Your task to perform on an android device: Show me productivity apps on the Play Store Image 0: 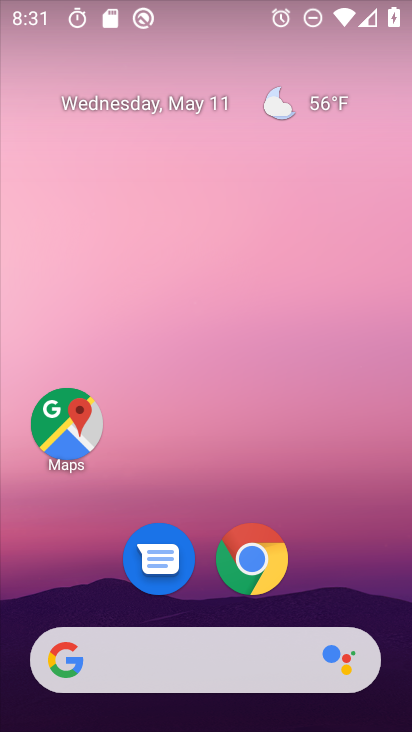
Step 0: drag from (314, 612) to (219, 20)
Your task to perform on an android device: Show me productivity apps on the Play Store Image 1: 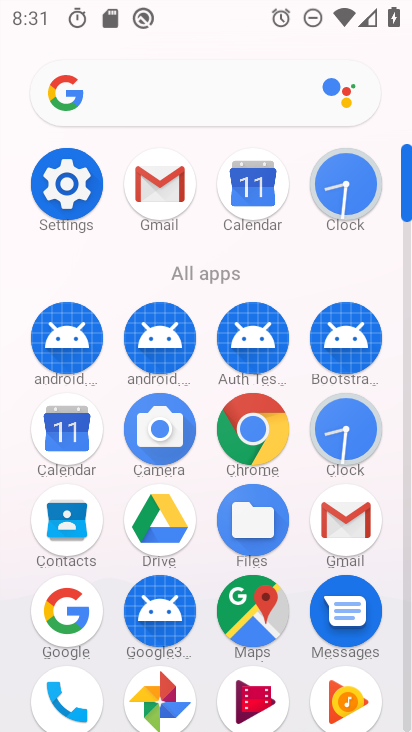
Step 1: drag from (187, 617) to (255, 205)
Your task to perform on an android device: Show me productivity apps on the Play Store Image 2: 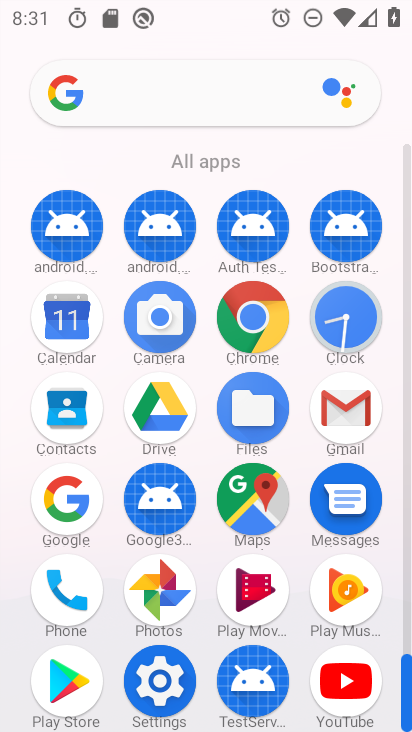
Step 2: click (56, 689)
Your task to perform on an android device: Show me productivity apps on the Play Store Image 3: 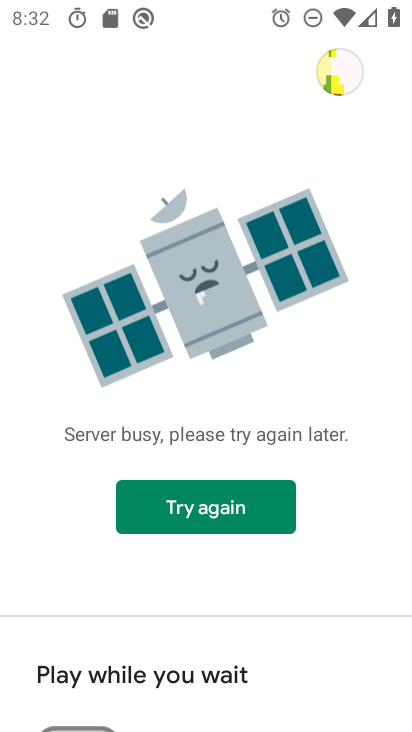
Step 3: click (182, 517)
Your task to perform on an android device: Show me productivity apps on the Play Store Image 4: 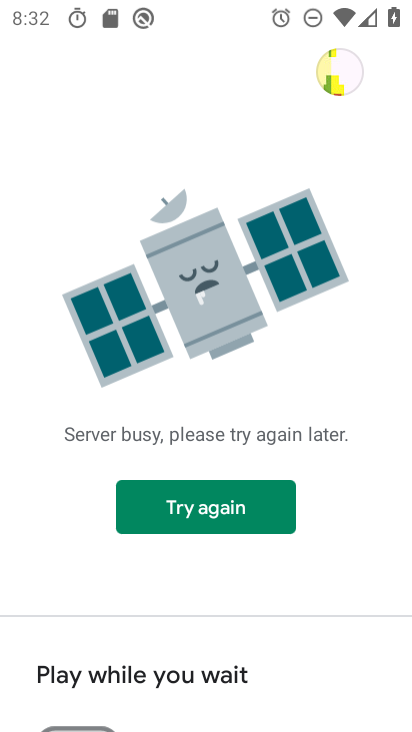
Step 4: click (182, 516)
Your task to perform on an android device: Show me productivity apps on the Play Store Image 5: 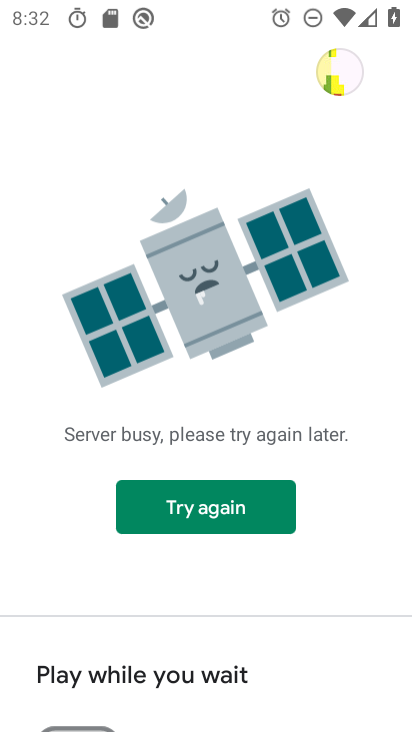
Step 5: click (182, 515)
Your task to perform on an android device: Show me productivity apps on the Play Store Image 6: 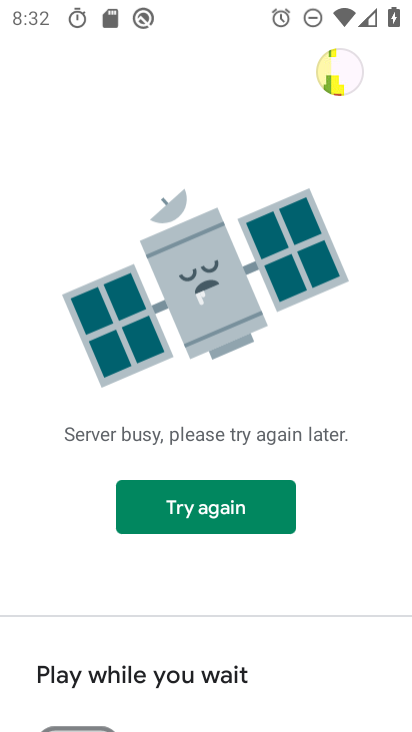
Step 6: task complete